Your task to perform on an android device: turn on notifications settings in the gmail app Image 0: 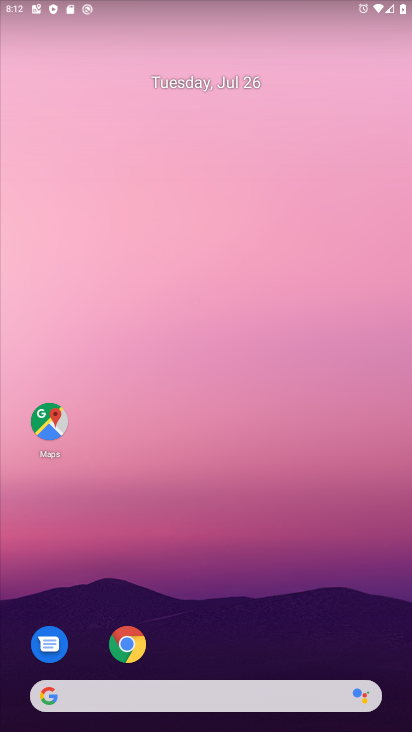
Step 0: drag from (188, 639) to (230, 191)
Your task to perform on an android device: turn on notifications settings in the gmail app Image 1: 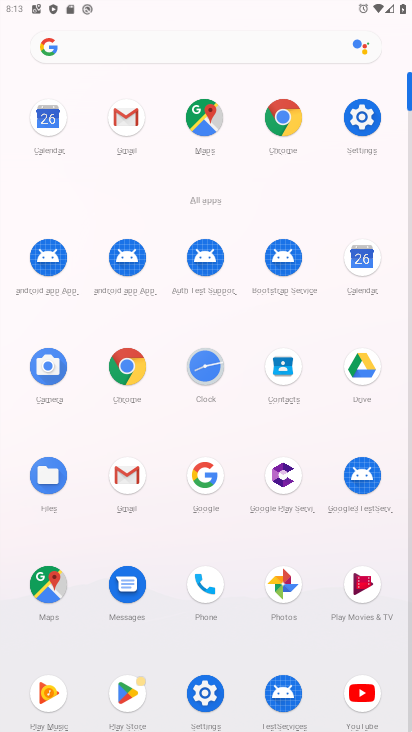
Step 1: click (134, 475)
Your task to perform on an android device: turn on notifications settings in the gmail app Image 2: 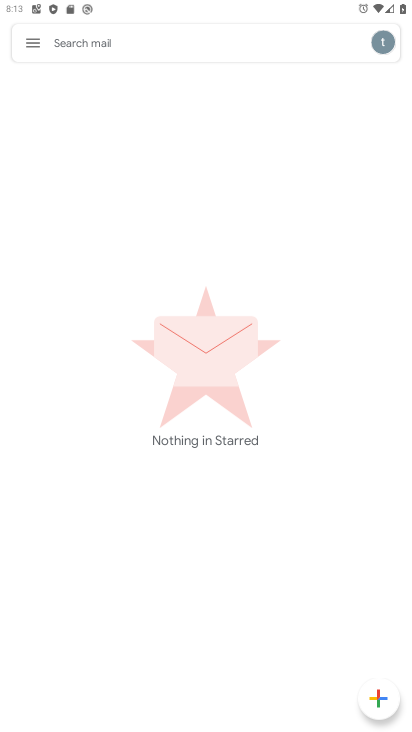
Step 2: click (34, 41)
Your task to perform on an android device: turn on notifications settings in the gmail app Image 3: 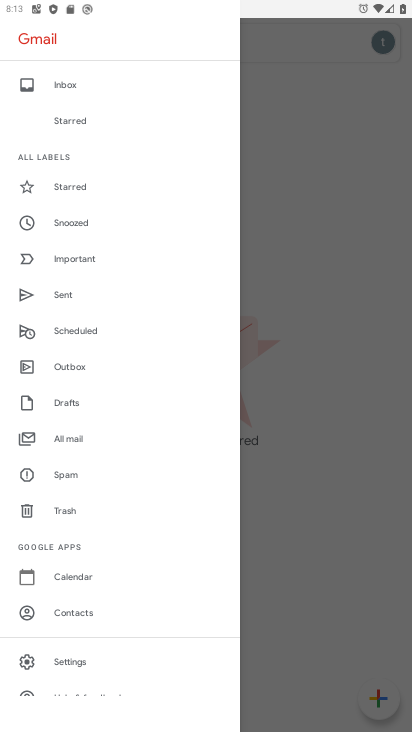
Step 3: click (76, 651)
Your task to perform on an android device: turn on notifications settings in the gmail app Image 4: 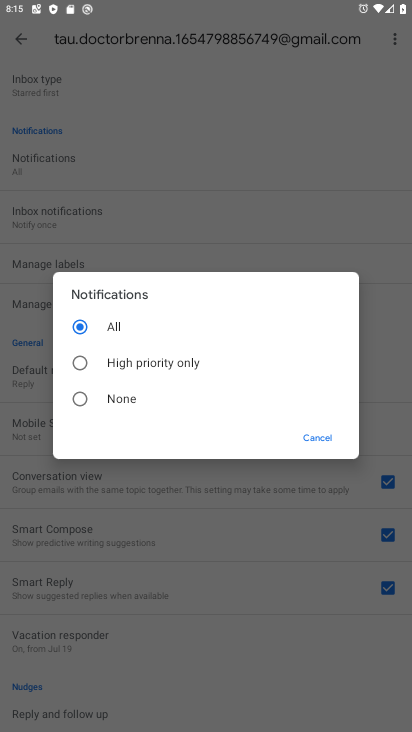
Step 4: task complete